Your task to perform on an android device: Do I have any events tomorrow? Image 0: 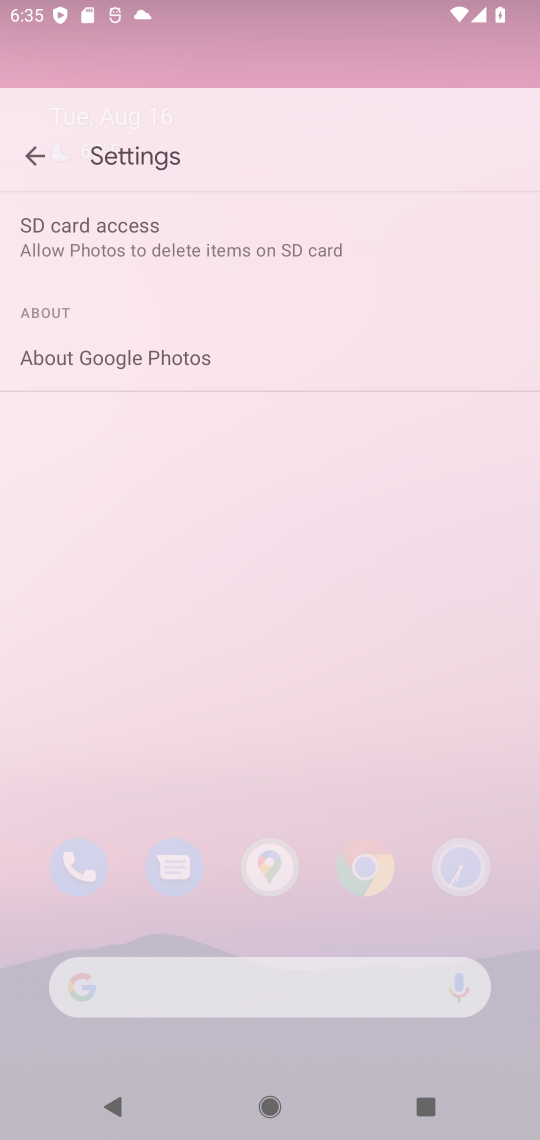
Step 0: press home button
Your task to perform on an android device: Do I have any events tomorrow? Image 1: 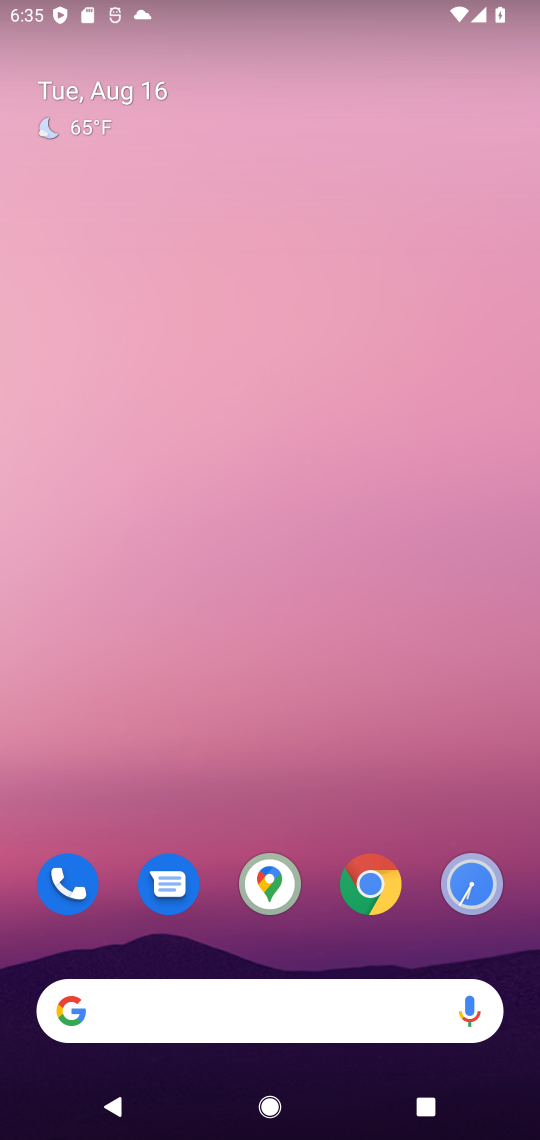
Step 1: drag from (323, 949) to (275, 0)
Your task to perform on an android device: Do I have any events tomorrow? Image 2: 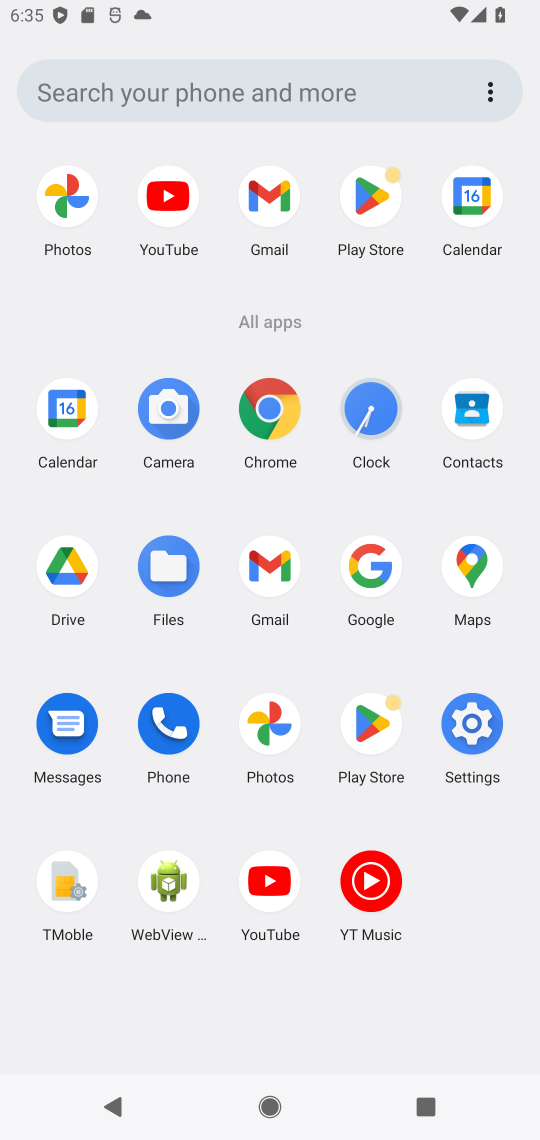
Step 2: click (467, 212)
Your task to perform on an android device: Do I have any events tomorrow? Image 3: 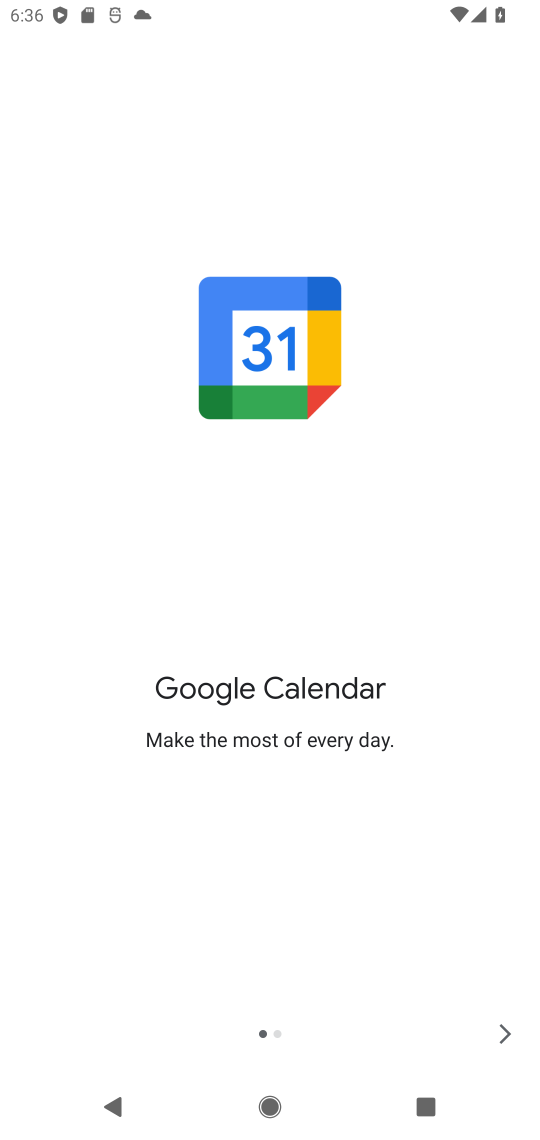
Step 3: click (500, 1025)
Your task to perform on an android device: Do I have any events tomorrow? Image 4: 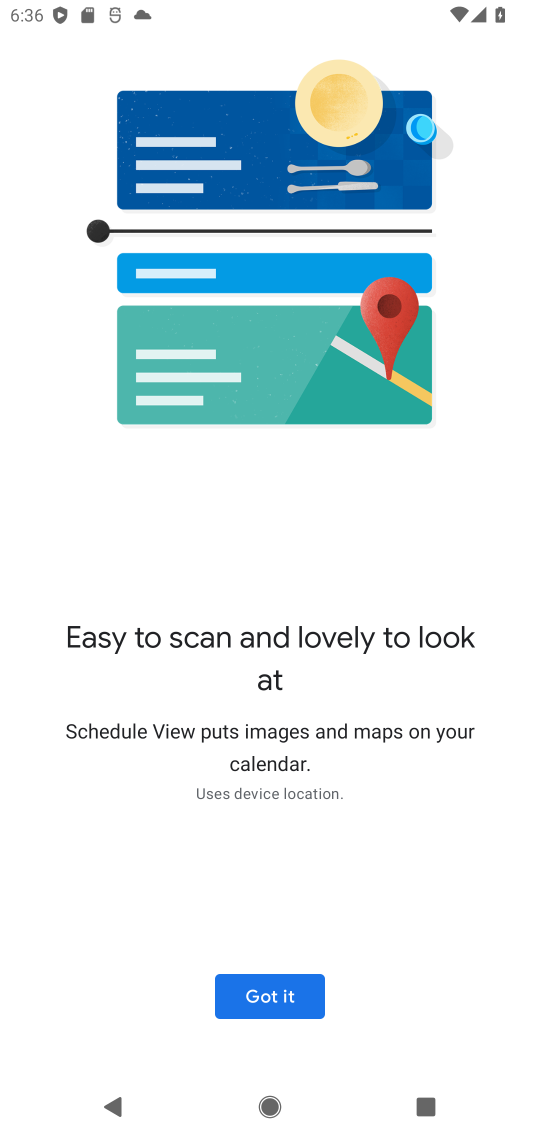
Step 4: click (271, 1001)
Your task to perform on an android device: Do I have any events tomorrow? Image 5: 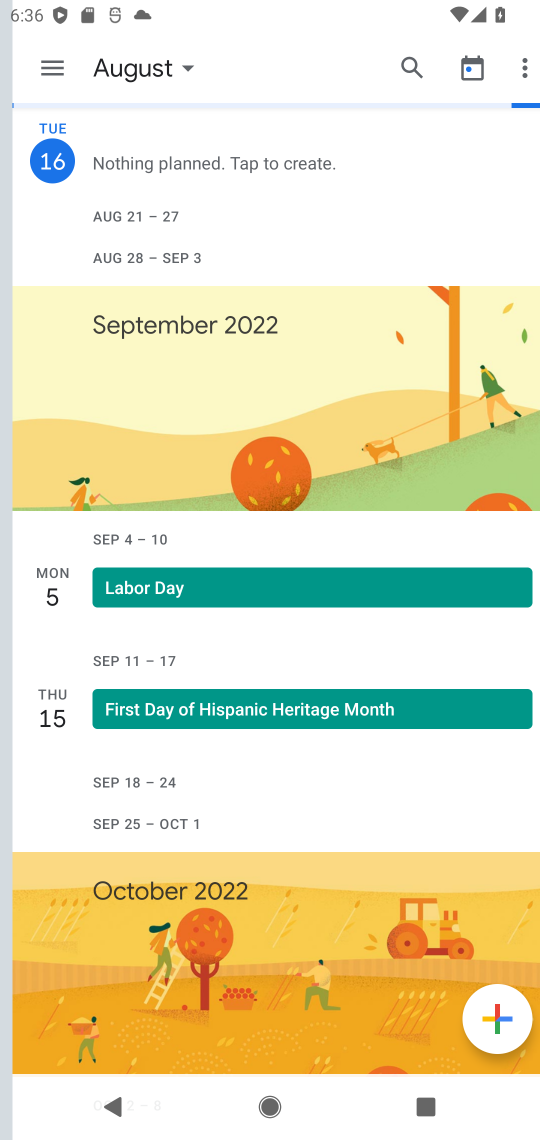
Step 5: click (271, 1001)
Your task to perform on an android device: Do I have any events tomorrow? Image 6: 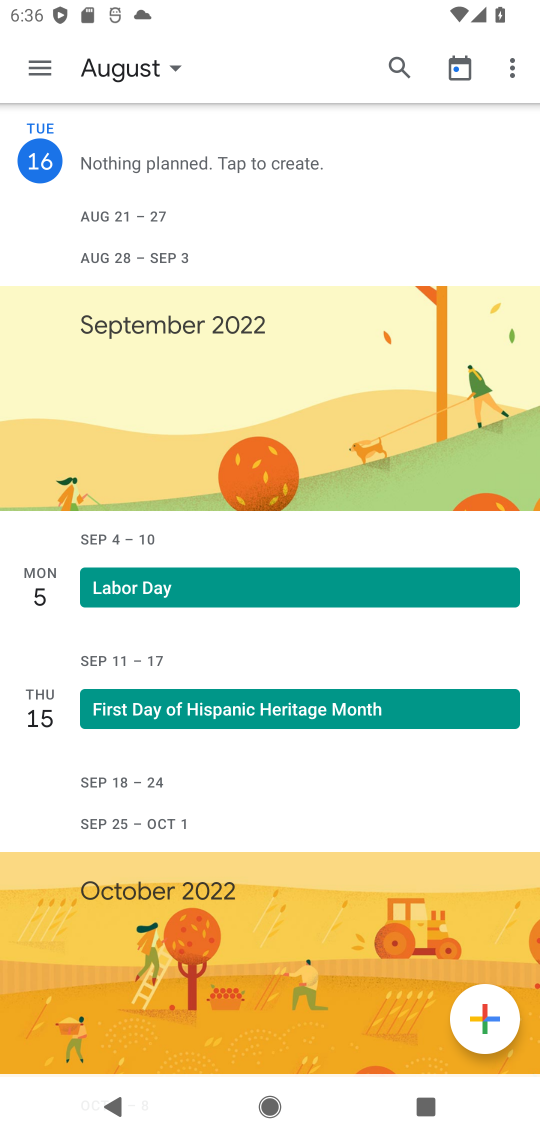
Step 6: click (146, 80)
Your task to perform on an android device: Do I have any events tomorrow? Image 7: 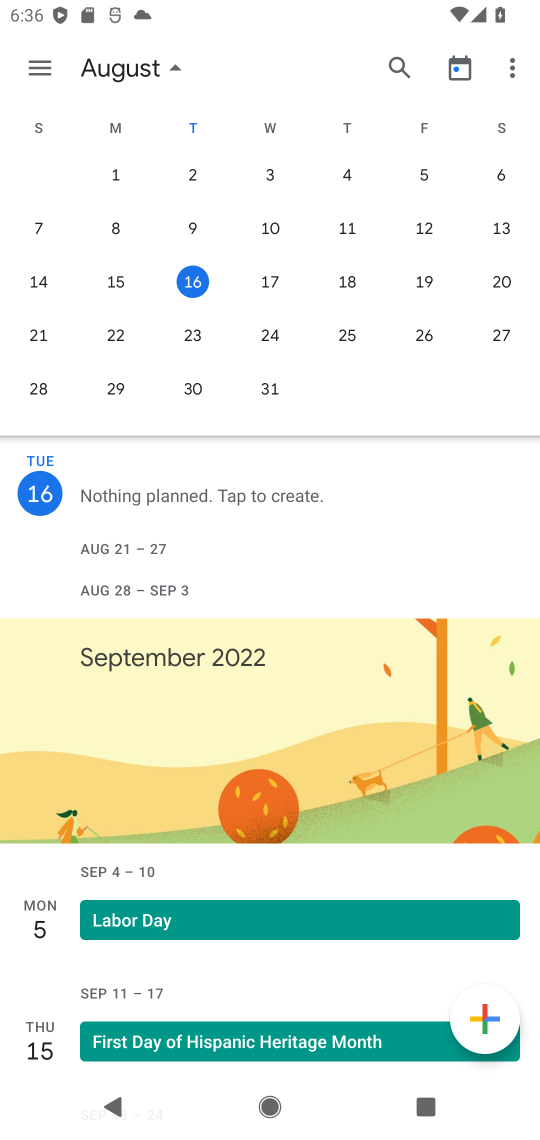
Step 7: click (275, 282)
Your task to perform on an android device: Do I have any events tomorrow? Image 8: 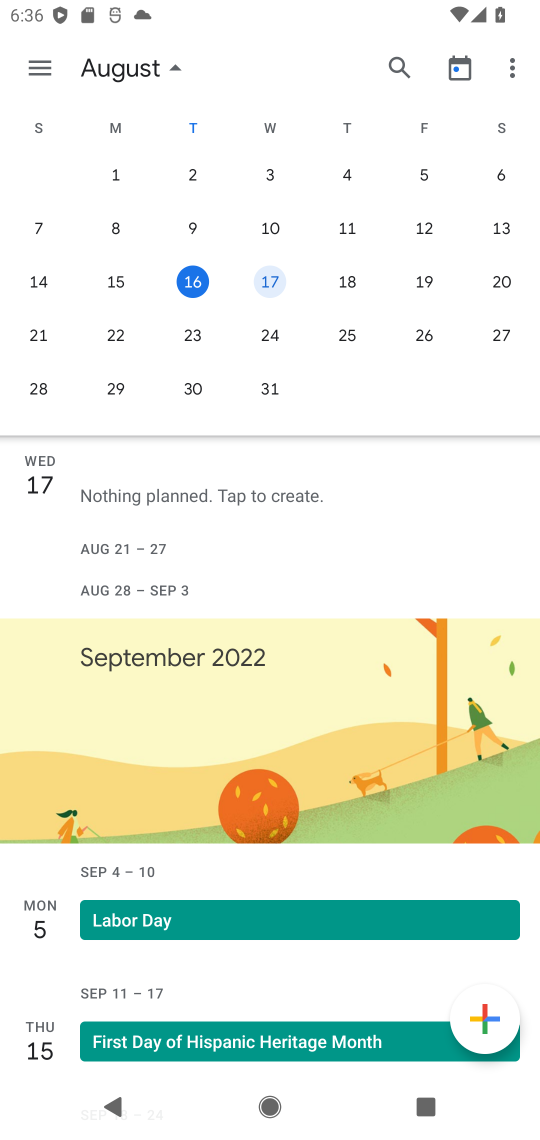
Step 8: task complete